Your task to perform on an android device: Go to Reddit.com Image 0: 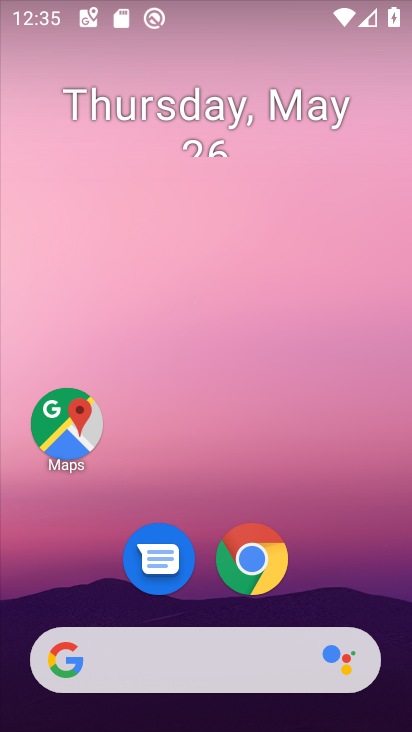
Step 0: press home button
Your task to perform on an android device: Go to Reddit.com Image 1: 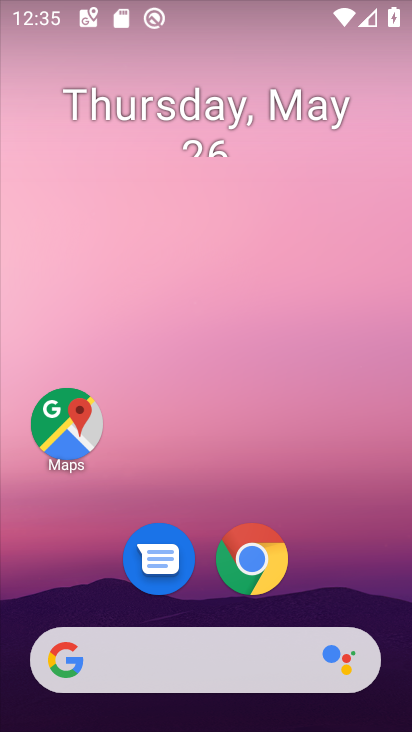
Step 1: click (55, 657)
Your task to perform on an android device: Go to Reddit.com Image 2: 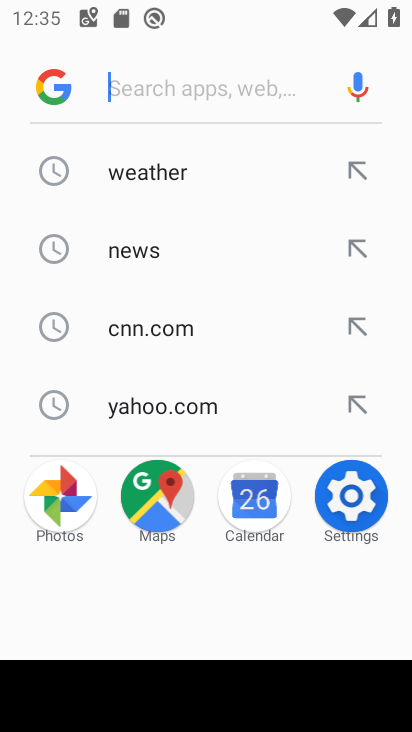
Step 2: type "Reddit.com"
Your task to perform on an android device: Go to Reddit.com Image 3: 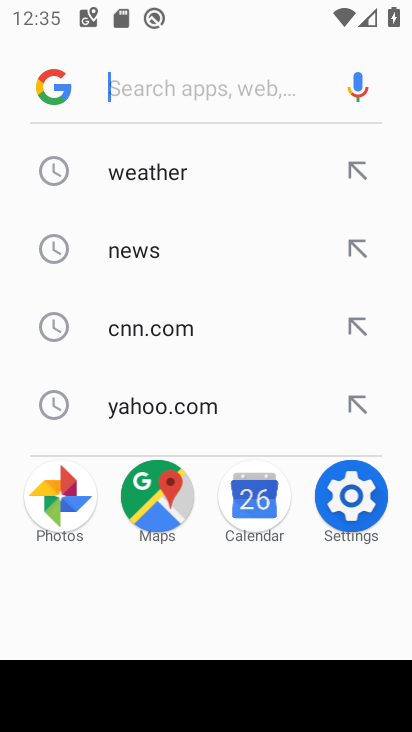
Step 3: click (189, 95)
Your task to perform on an android device: Go to Reddit.com Image 4: 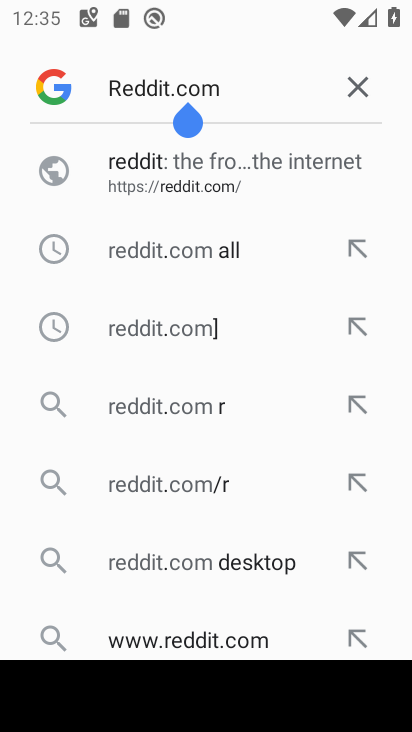
Step 4: click (178, 167)
Your task to perform on an android device: Go to Reddit.com Image 5: 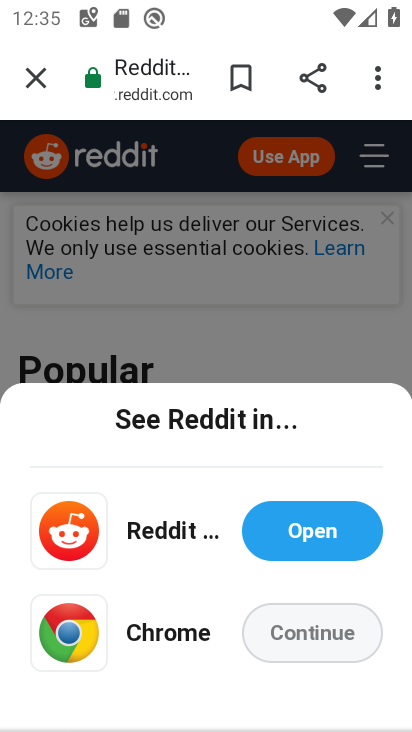
Step 5: task complete